Your task to perform on an android device: Open settings on Google Maps Image 0: 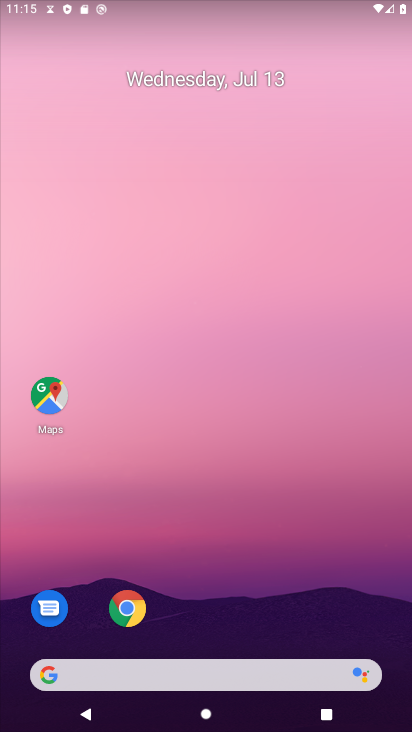
Step 0: drag from (169, 637) to (278, 20)
Your task to perform on an android device: Open settings on Google Maps Image 1: 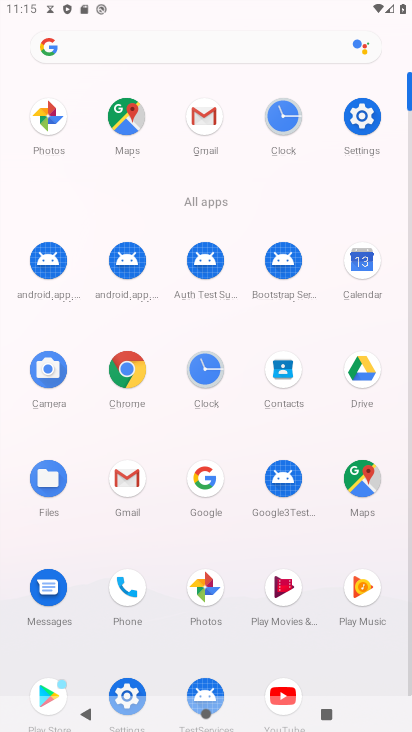
Step 1: click (361, 482)
Your task to perform on an android device: Open settings on Google Maps Image 2: 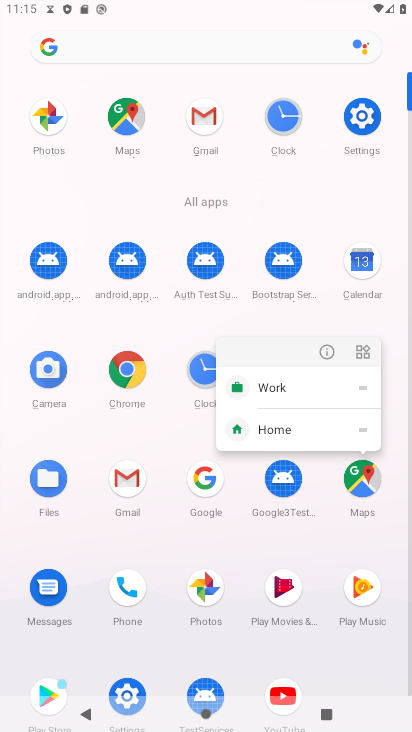
Step 2: click (331, 342)
Your task to perform on an android device: Open settings on Google Maps Image 3: 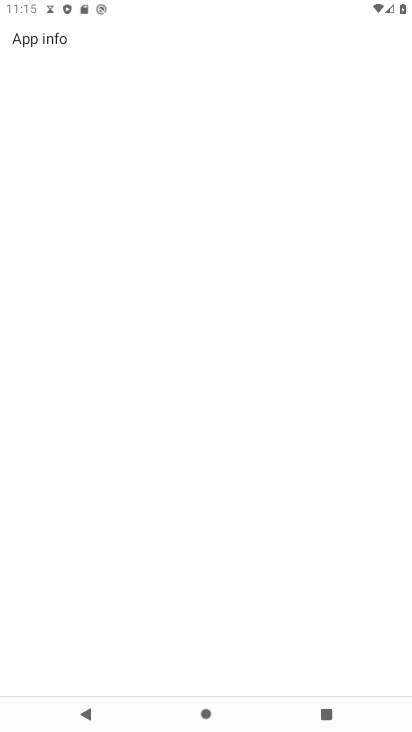
Step 3: click (331, 342)
Your task to perform on an android device: Open settings on Google Maps Image 4: 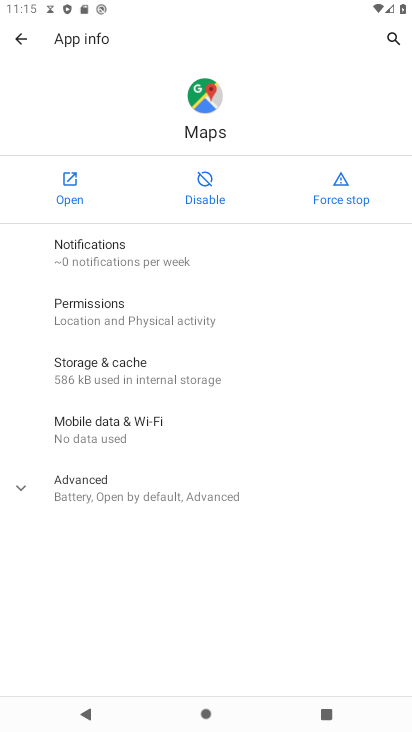
Step 4: click (65, 182)
Your task to perform on an android device: Open settings on Google Maps Image 5: 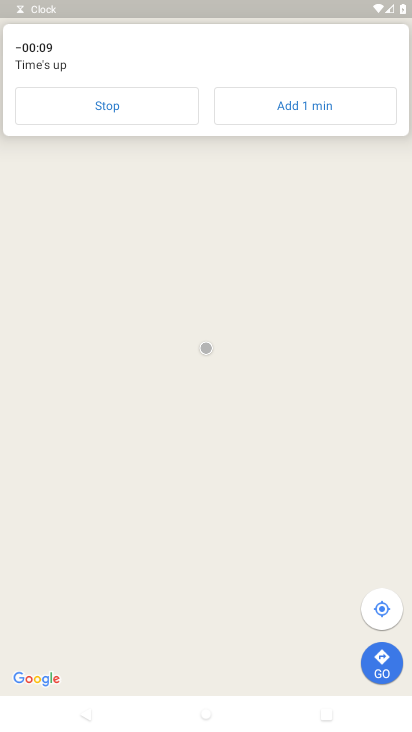
Step 5: click (104, 94)
Your task to perform on an android device: Open settings on Google Maps Image 6: 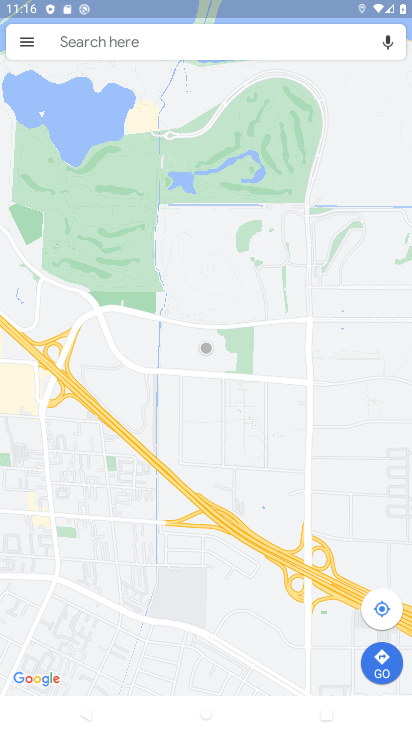
Step 6: click (130, 110)
Your task to perform on an android device: Open settings on Google Maps Image 7: 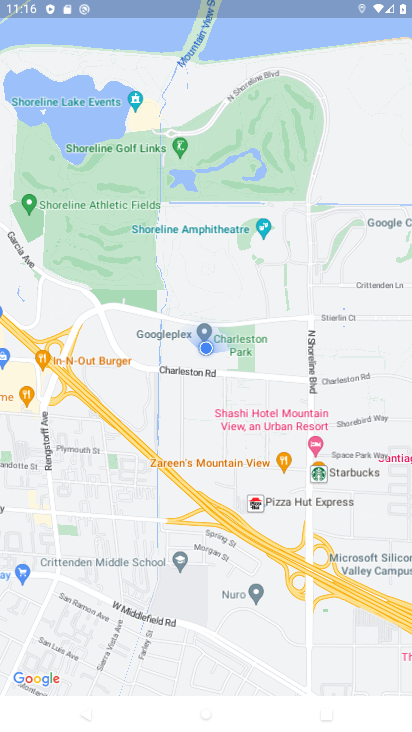
Step 7: click (37, 40)
Your task to perform on an android device: Open settings on Google Maps Image 8: 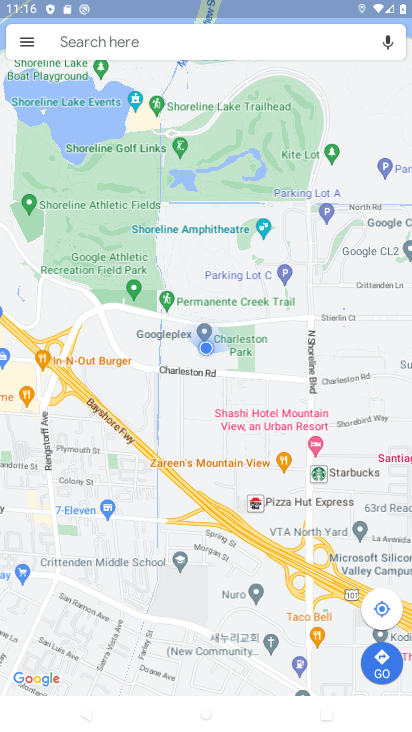
Step 8: click (30, 49)
Your task to perform on an android device: Open settings on Google Maps Image 9: 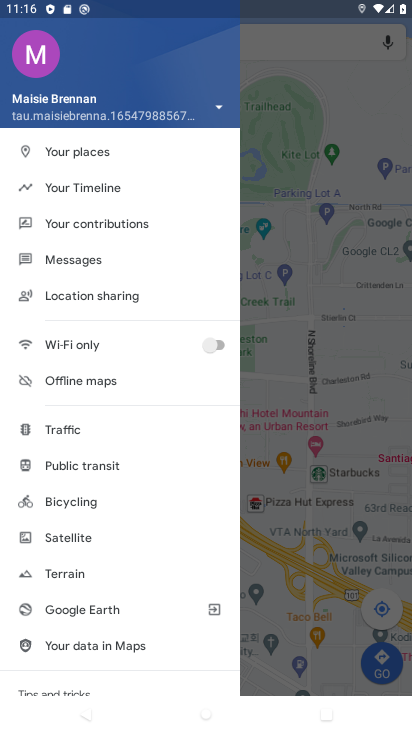
Step 9: drag from (83, 588) to (148, 261)
Your task to perform on an android device: Open settings on Google Maps Image 10: 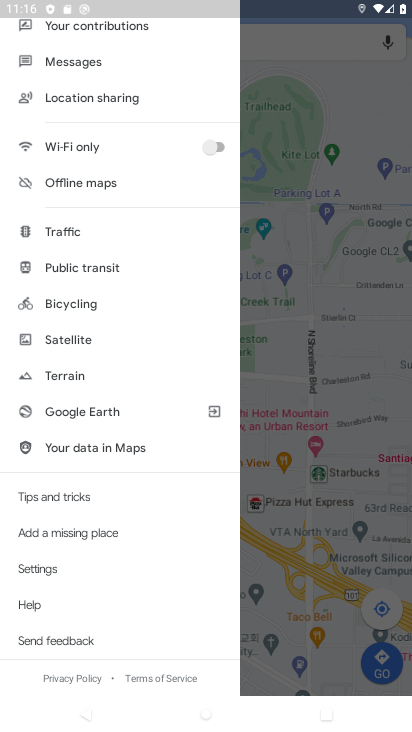
Step 10: click (65, 574)
Your task to perform on an android device: Open settings on Google Maps Image 11: 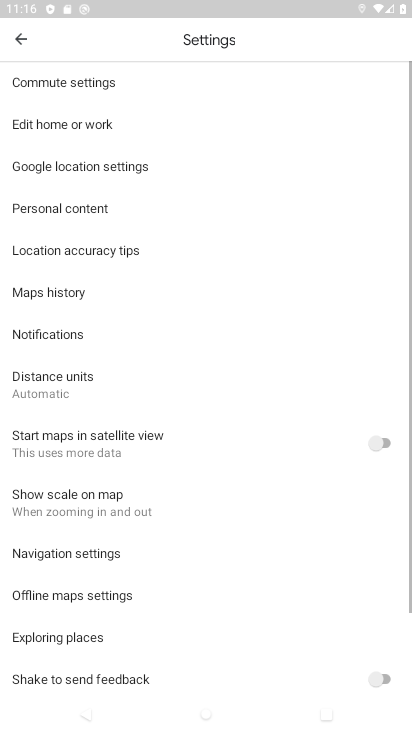
Step 11: task complete